Your task to perform on an android device: check out phone information Image 0: 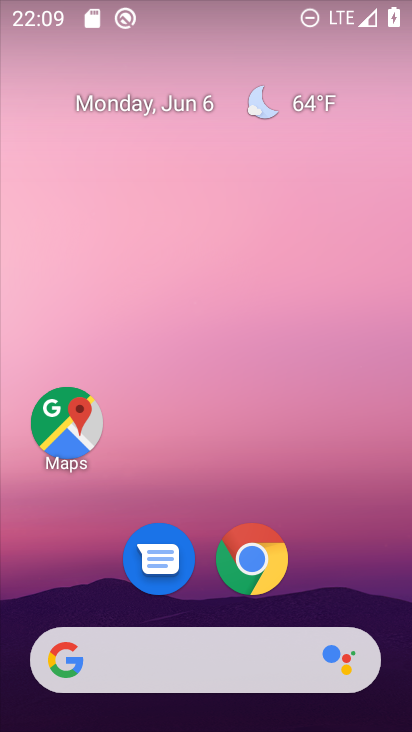
Step 0: drag from (224, 728) to (183, 174)
Your task to perform on an android device: check out phone information Image 1: 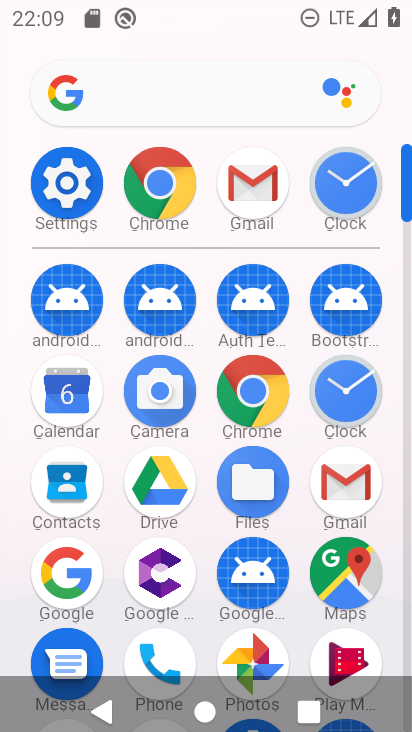
Step 1: click (70, 179)
Your task to perform on an android device: check out phone information Image 2: 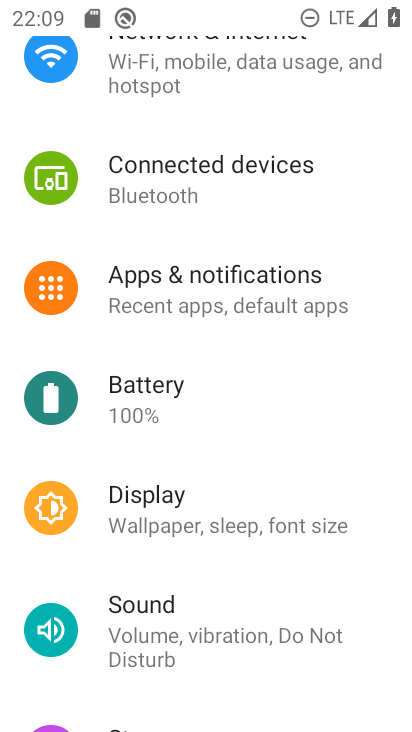
Step 2: drag from (231, 702) to (205, 282)
Your task to perform on an android device: check out phone information Image 3: 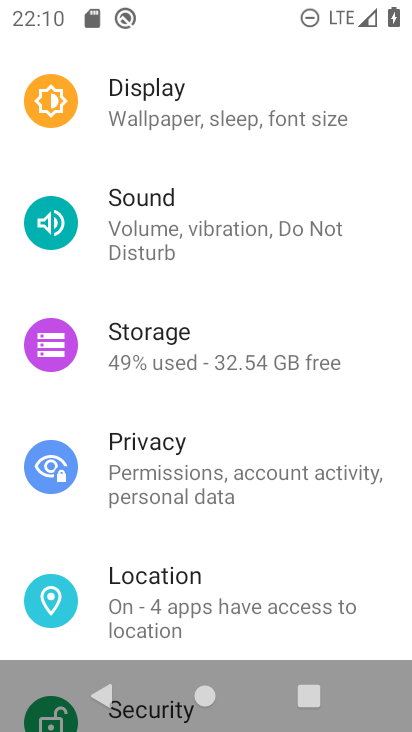
Step 3: drag from (222, 631) to (210, 252)
Your task to perform on an android device: check out phone information Image 4: 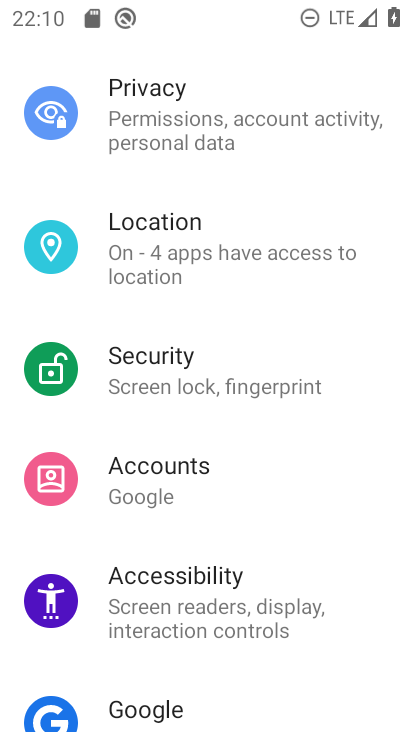
Step 4: drag from (225, 670) to (236, 323)
Your task to perform on an android device: check out phone information Image 5: 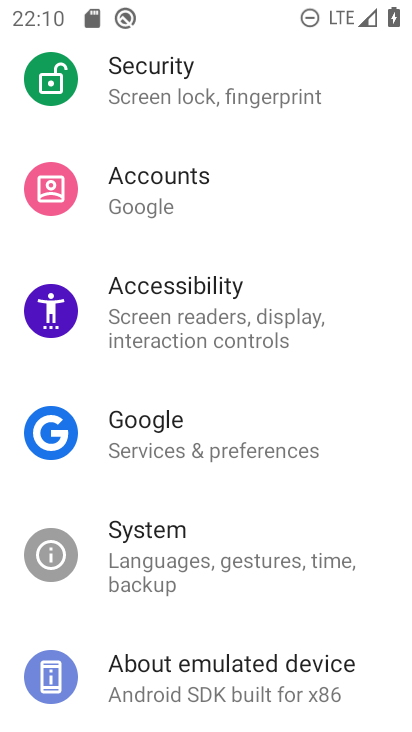
Step 5: drag from (191, 666) to (191, 304)
Your task to perform on an android device: check out phone information Image 6: 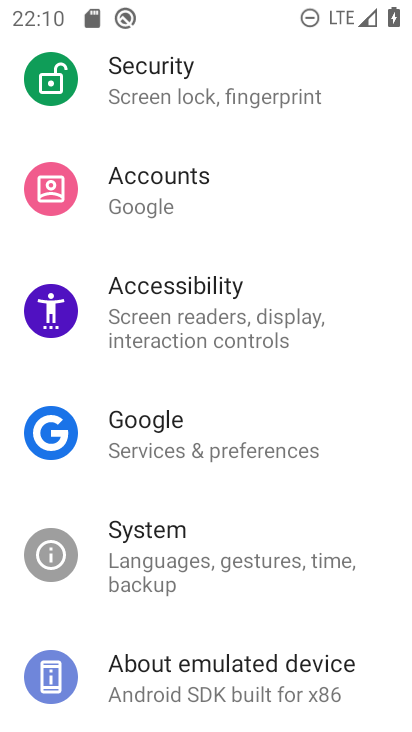
Step 6: click (172, 673)
Your task to perform on an android device: check out phone information Image 7: 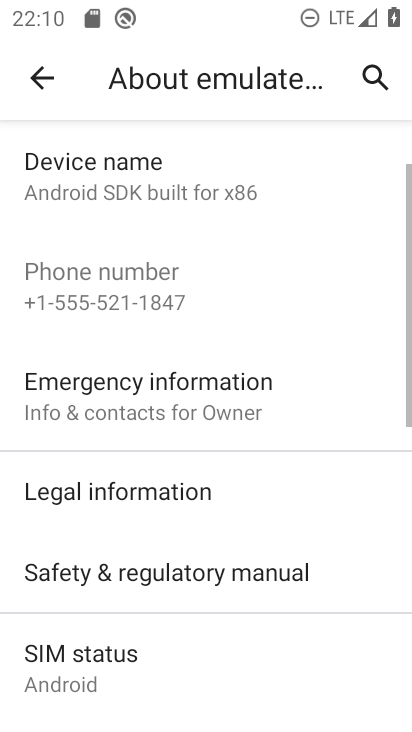
Step 7: task complete